Your task to perform on an android device: visit the assistant section in the google photos Image 0: 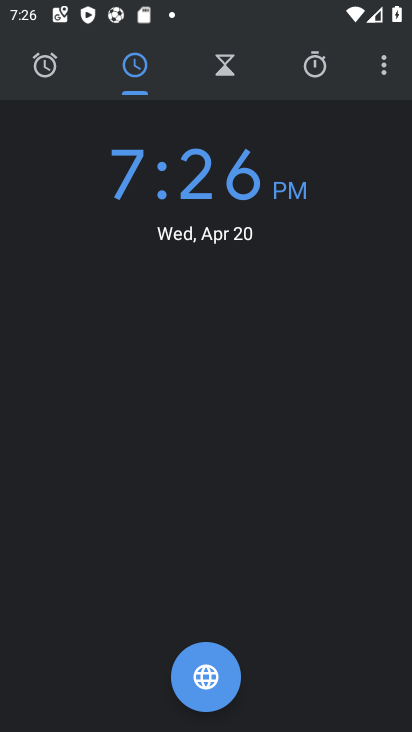
Step 0: press home button
Your task to perform on an android device: visit the assistant section in the google photos Image 1: 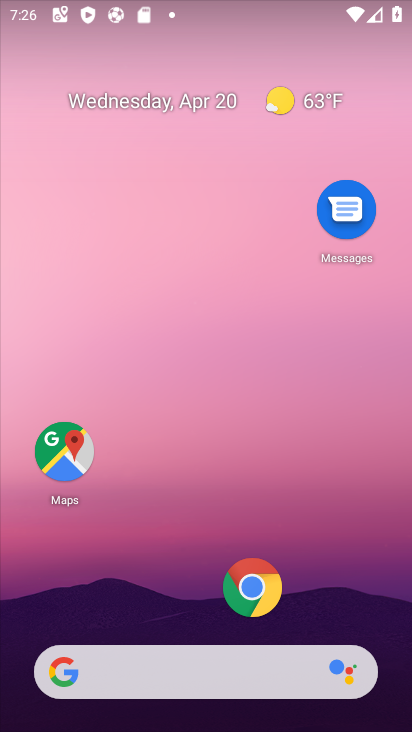
Step 1: drag from (170, 644) to (349, 70)
Your task to perform on an android device: visit the assistant section in the google photos Image 2: 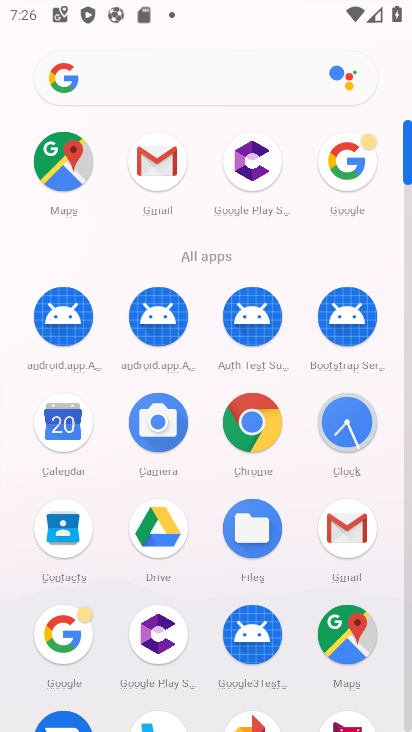
Step 2: drag from (201, 582) to (304, 168)
Your task to perform on an android device: visit the assistant section in the google photos Image 3: 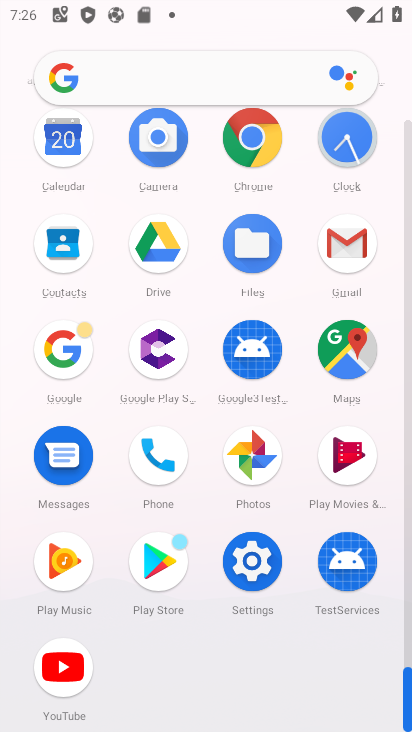
Step 3: click (262, 464)
Your task to perform on an android device: visit the assistant section in the google photos Image 4: 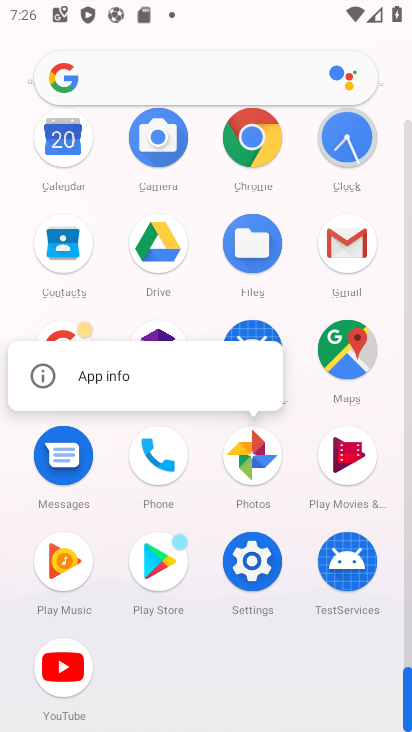
Step 4: click (252, 457)
Your task to perform on an android device: visit the assistant section in the google photos Image 5: 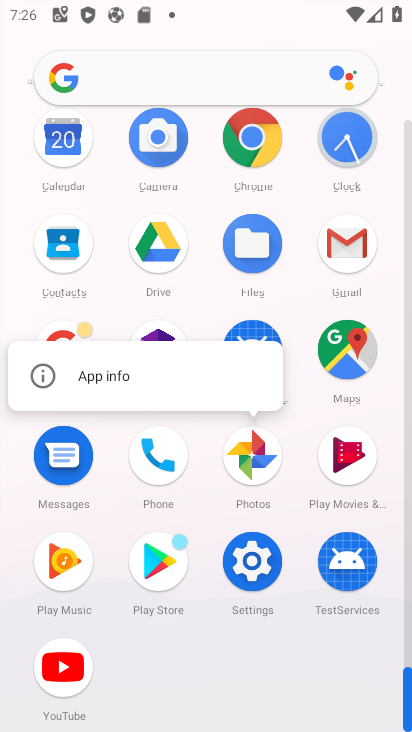
Step 5: click (252, 456)
Your task to perform on an android device: visit the assistant section in the google photos Image 6: 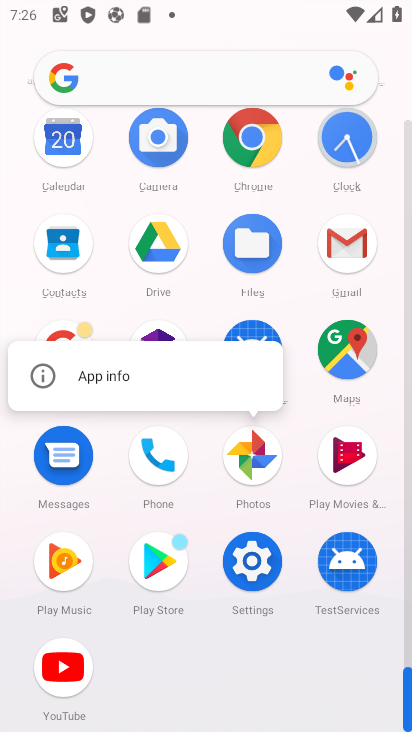
Step 6: click (258, 458)
Your task to perform on an android device: visit the assistant section in the google photos Image 7: 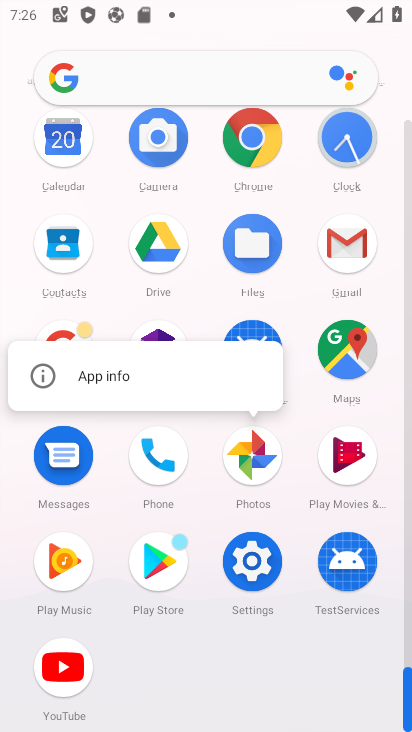
Step 7: click (254, 461)
Your task to perform on an android device: visit the assistant section in the google photos Image 8: 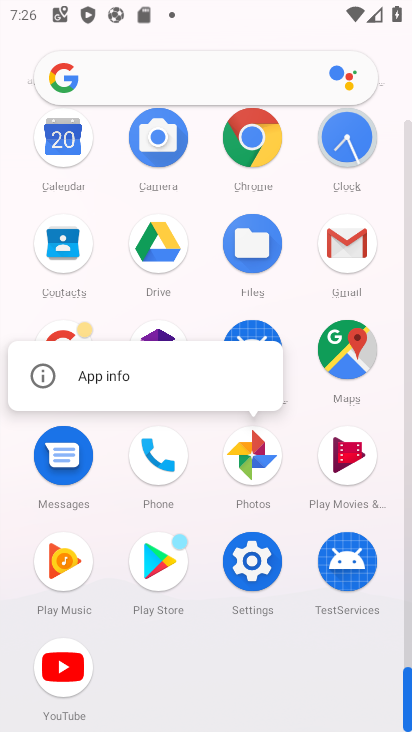
Step 8: click (250, 462)
Your task to perform on an android device: visit the assistant section in the google photos Image 9: 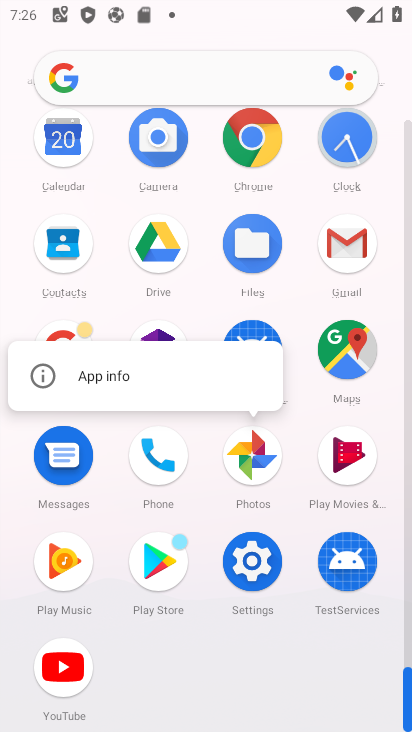
Step 9: click (254, 458)
Your task to perform on an android device: visit the assistant section in the google photos Image 10: 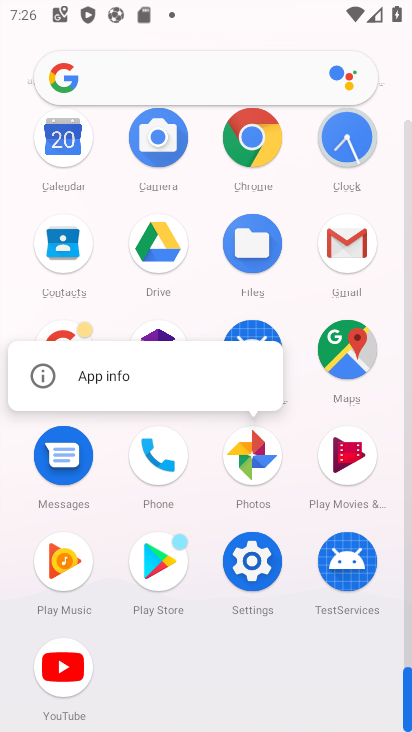
Step 10: click (262, 461)
Your task to perform on an android device: visit the assistant section in the google photos Image 11: 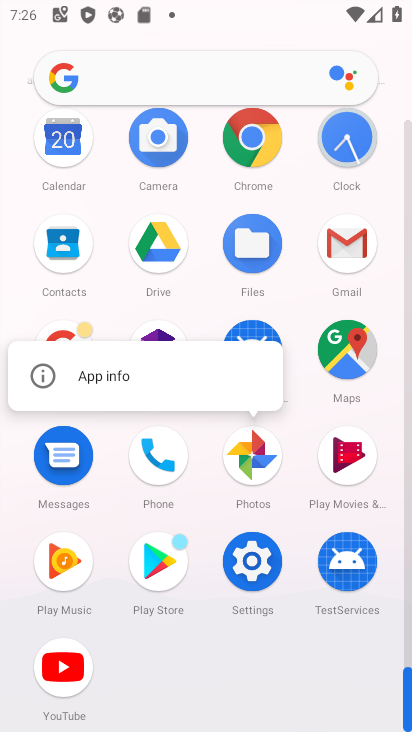
Step 11: click (254, 458)
Your task to perform on an android device: visit the assistant section in the google photos Image 12: 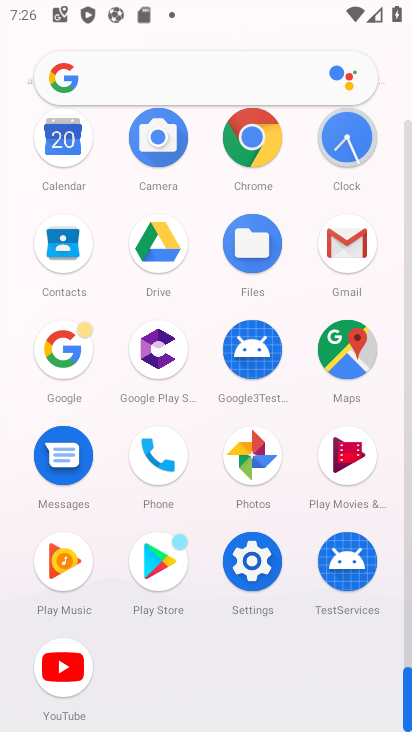
Step 12: click (255, 460)
Your task to perform on an android device: visit the assistant section in the google photos Image 13: 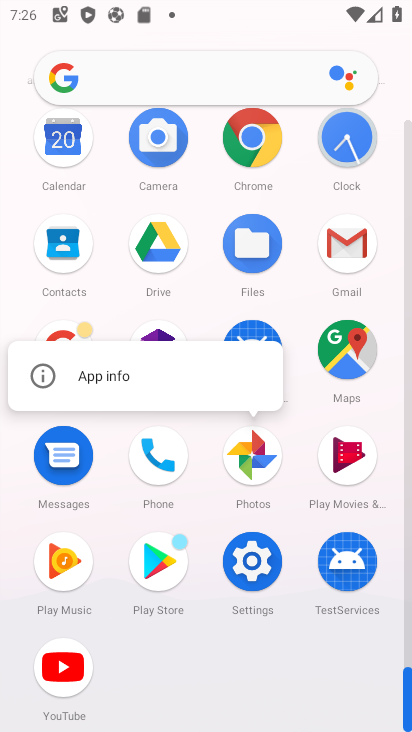
Step 13: click (246, 467)
Your task to perform on an android device: visit the assistant section in the google photos Image 14: 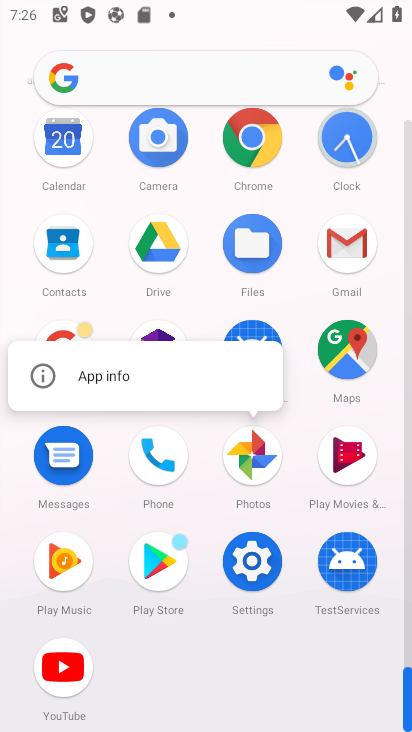
Step 14: click (256, 455)
Your task to perform on an android device: visit the assistant section in the google photos Image 15: 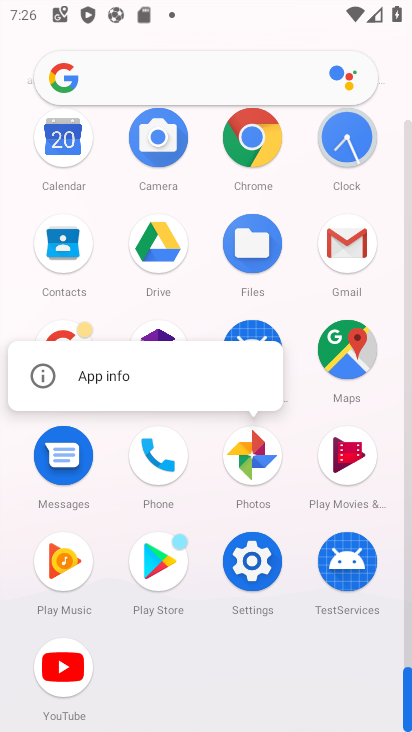
Step 15: click (248, 459)
Your task to perform on an android device: visit the assistant section in the google photos Image 16: 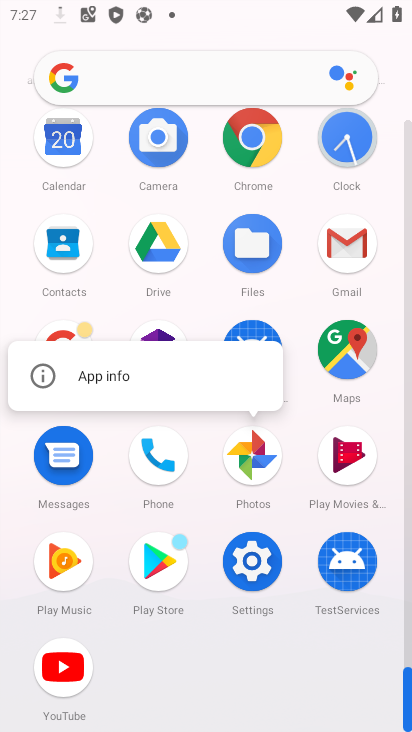
Step 16: drag from (203, 531) to (270, 226)
Your task to perform on an android device: visit the assistant section in the google photos Image 17: 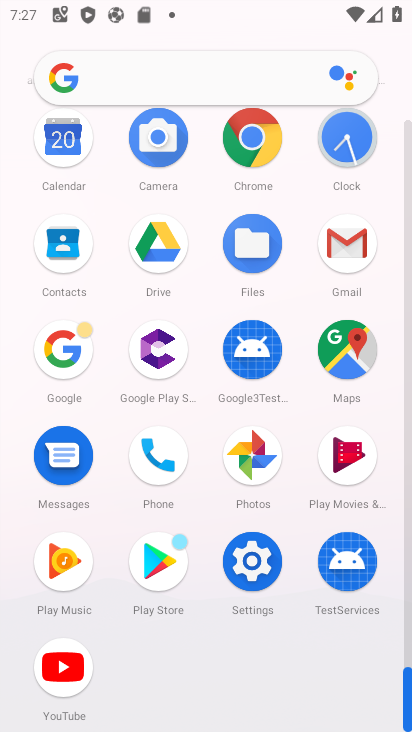
Step 17: click (249, 456)
Your task to perform on an android device: visit the assistant section in the google photos Image 18: 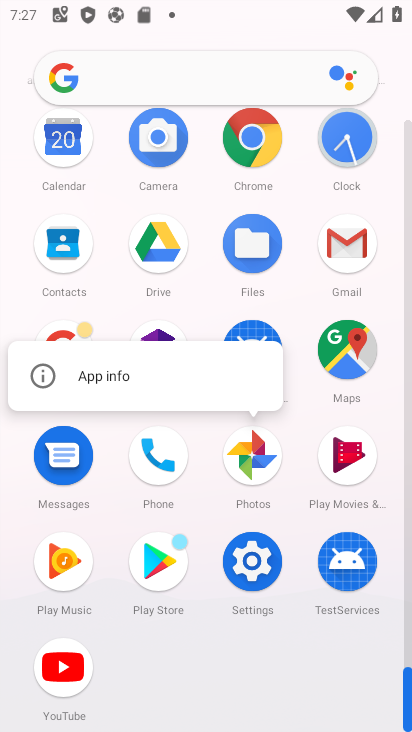
Step 18: click (262, 457)
Your task to perform on an android device: visit the assistant section in the google photos Image 19: 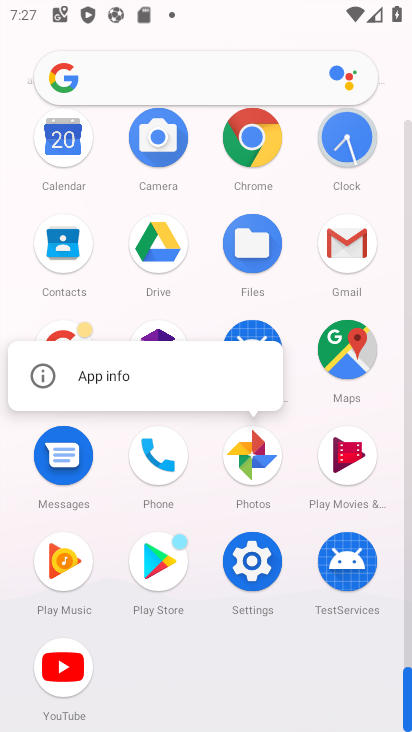
Step 19: click (255, 457)
Your task to perform on an android device: visit the assistant section in the google photos Image 20: 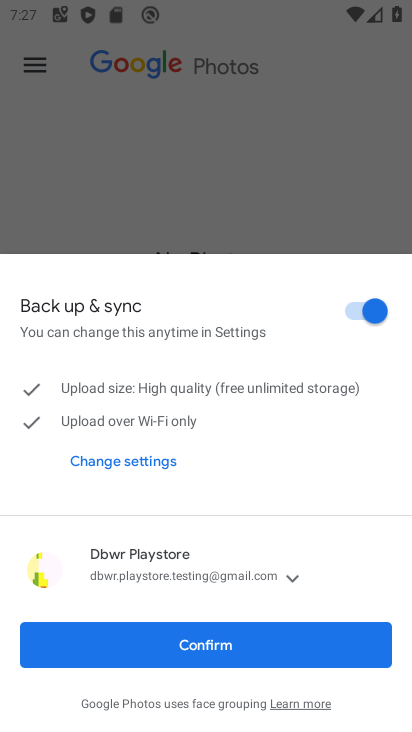
Step 20: click (202, 643)
Your task to perform on an android device: visit the assistant section in the google photos Image 21: 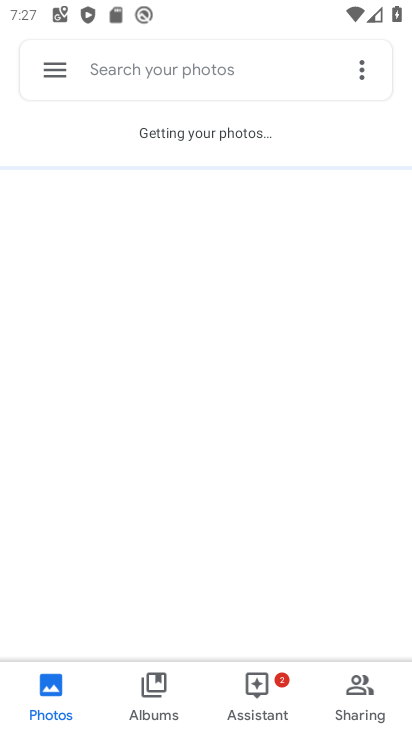
Step 21: click (262, 686)
Your task to perform on an android device: visit the assistant section in the google photos Image 22: 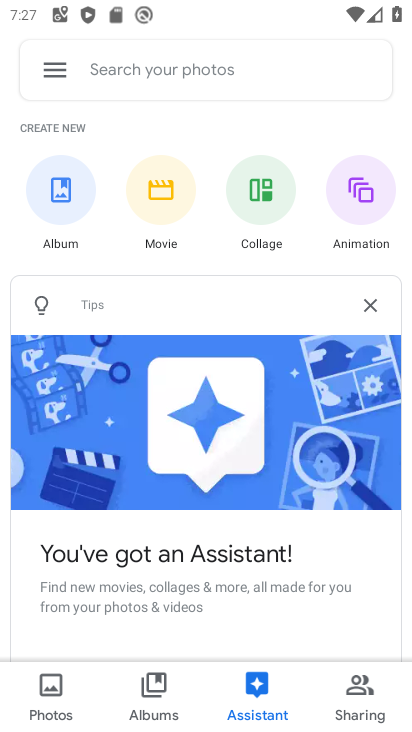
Step 22: task complete